Your task to perform on an android device: Search for pizza restaurants on Maps Image 0: 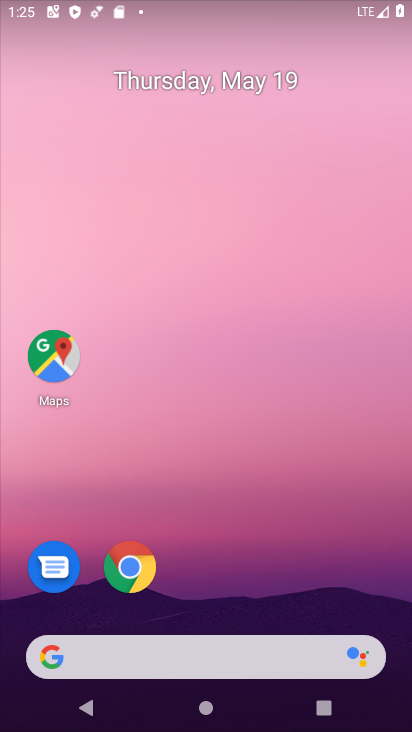
Step 0: click (47, 348)
Your task to perform on an android device: Search for pizza restaurants on Maps Image 1: 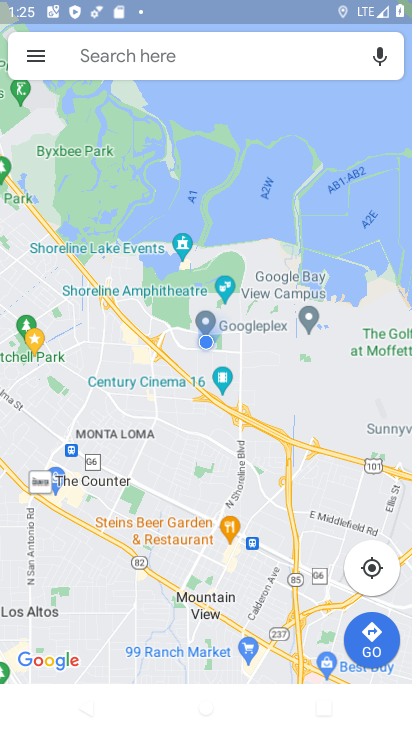
Step 1: click (124, 58)
Your task to perform on an android device: Search for pizza restaurants on Maps Image 2: 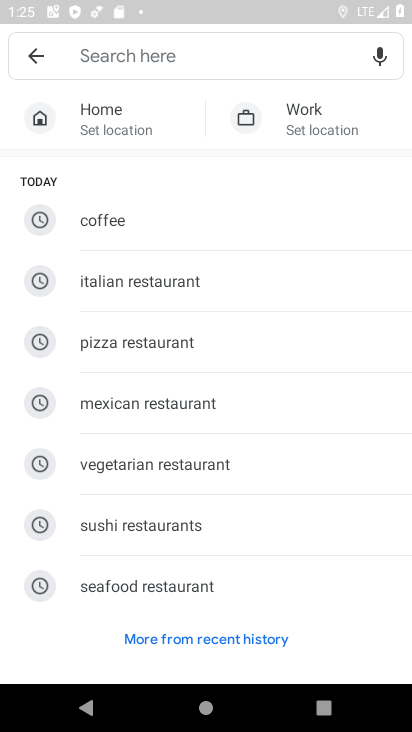
Step 2: click (88, 353)
Your task to perform on an android device: Search for pizza restaurants on Maps Image 3: 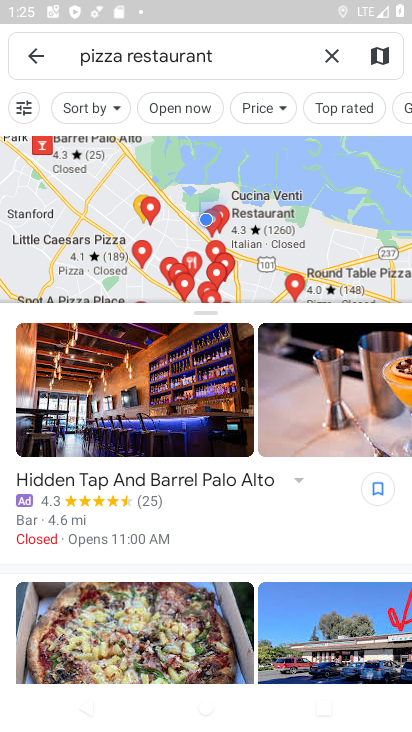
Step 3: task complete